Your task to perform on an android device: turn on translation in the chrome app Image 0: 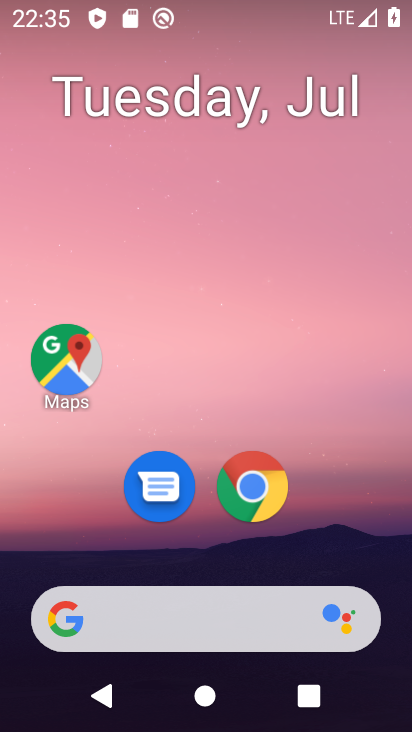
Step 0: press home button
Your task to perform on an android device: turn on translation in the chrome app Image 1: 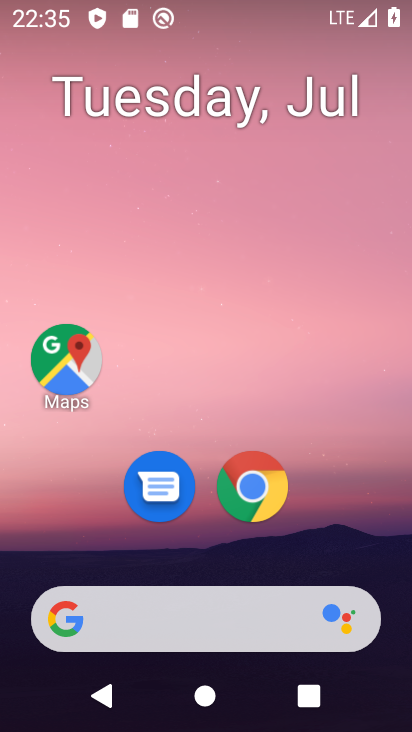
Step 1: drag from (356, 524) to (367, 121)
Your task to perform on an android device: turn on translation in the chrome app Image 2: 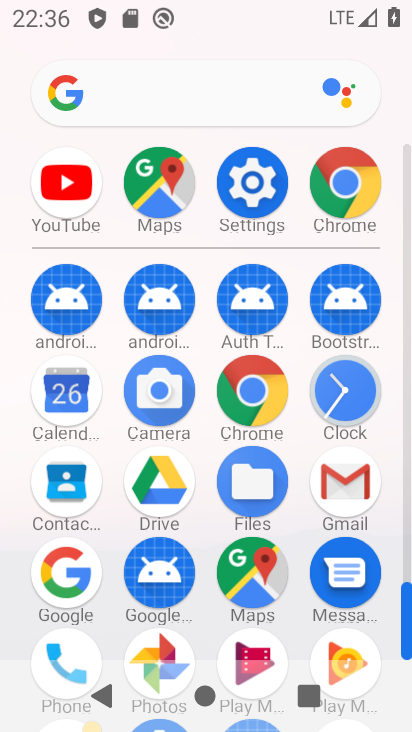
Step 2: click (256, 390)
Your task to perform on an android device: turn on translation in the chrome app Image 3: 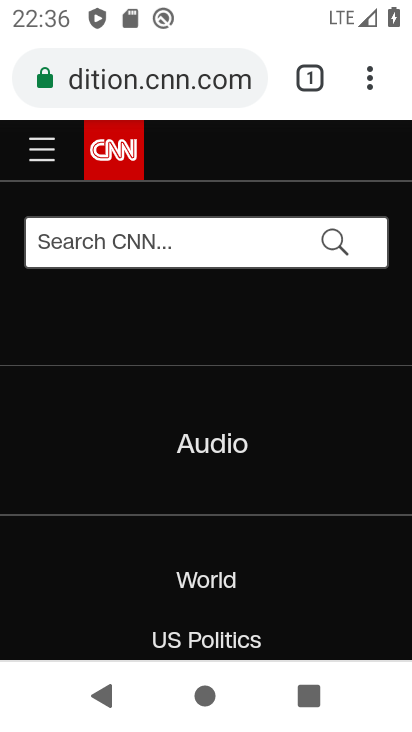
Step 3: click (368, 82)
Your task to perform on an android device: turn on translation in the chrome app Image 4: 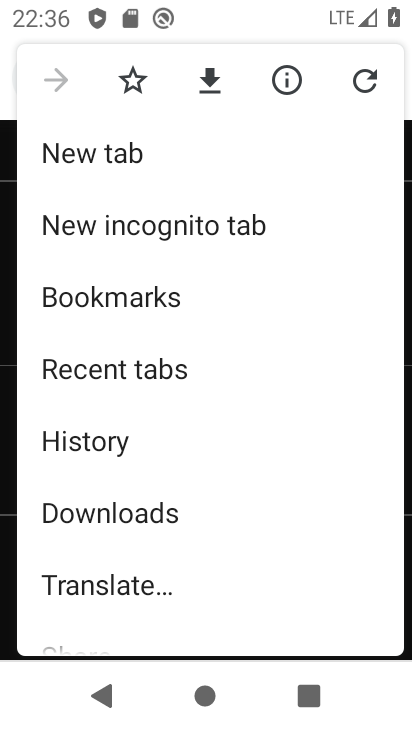
Step 4: drag from (266, 459) to (285, 373)
Your task to perform on an android device: turn on translation in the chrome app Image 5: 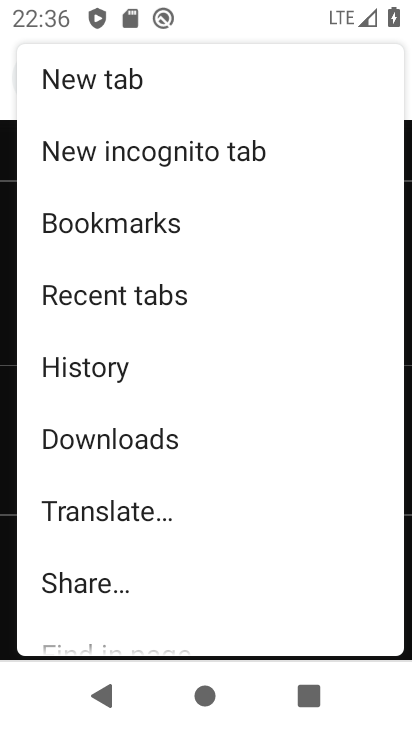
Step 5: drag from (261, 519) to (280, 379)
Your task to perform on an android device: turn on translation in the chrome app Image 6: 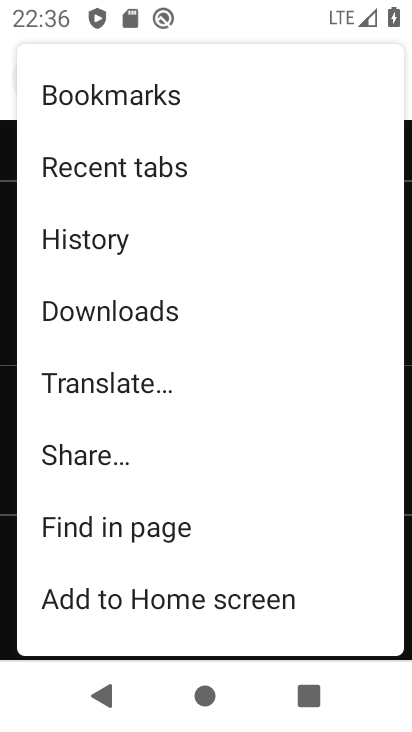
Step 6: drag from (281, 515) to (298, 386)
Your task to perform on an android device: turn on translation in the chrome app Image 7: 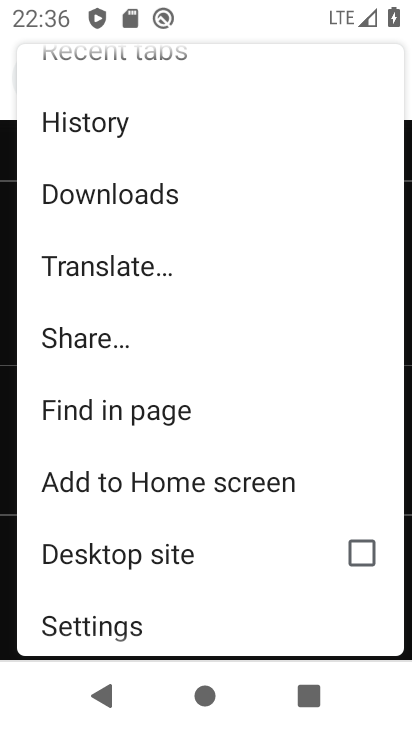
Step 7: drag from (274, 576) to (279, 436)
Your task to perform on an android device: turn on translation in the chrome app Image 8: 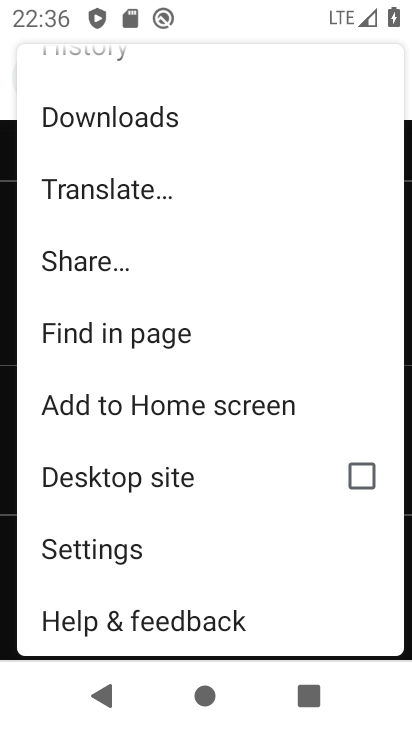
Step 8: click (230, 553)
Your task to perform on an android device: turn on translation in the chrome app Image 9: 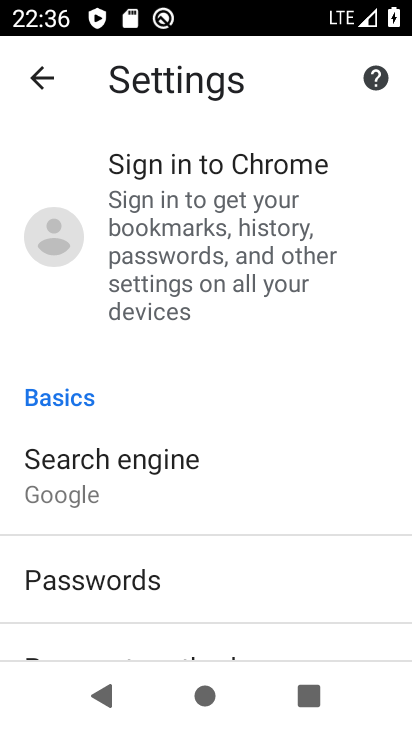
Step 9: drag from (330, 557) to (336, 441)
Your task to perform on an android device: turn on translation in the chrome app Image 10: 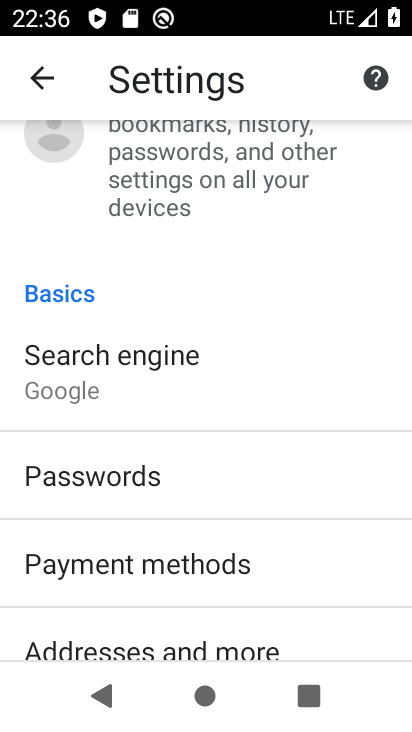
Step 10: drag from (334, 532) to (339, 434)
Your task to perform on an android device: turn on translation in the chrome app Image 11: 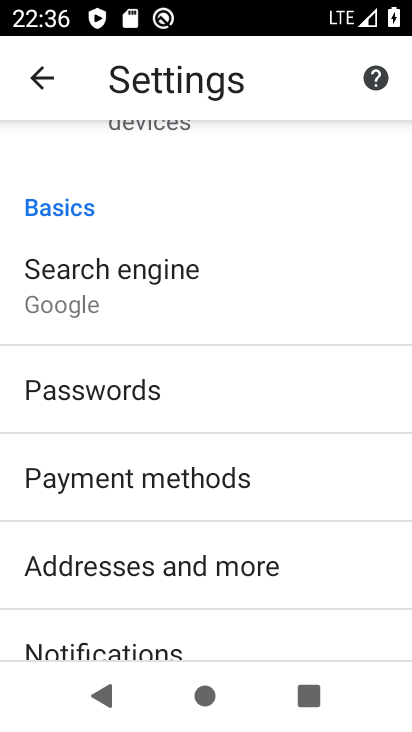
Step 11: drag from (333, 572) to (334, 439)
Your task to perform on an android device: turn on translation in the chrome app Image 12: 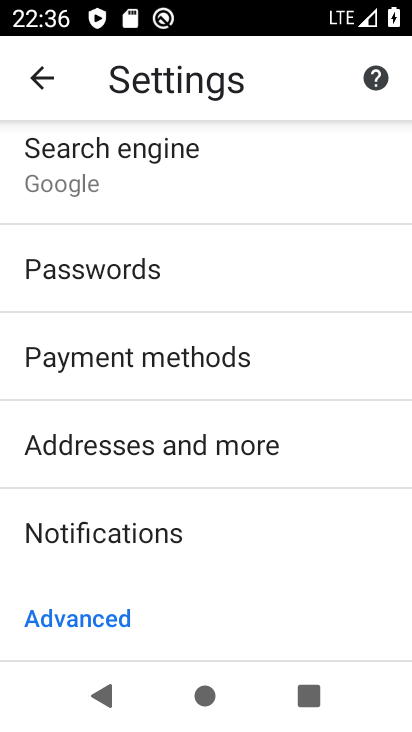
Step 12: drag from (329, 575) to (325, 466)
Your task to perform on an android device: turn on translation in the chrome app Image 13: 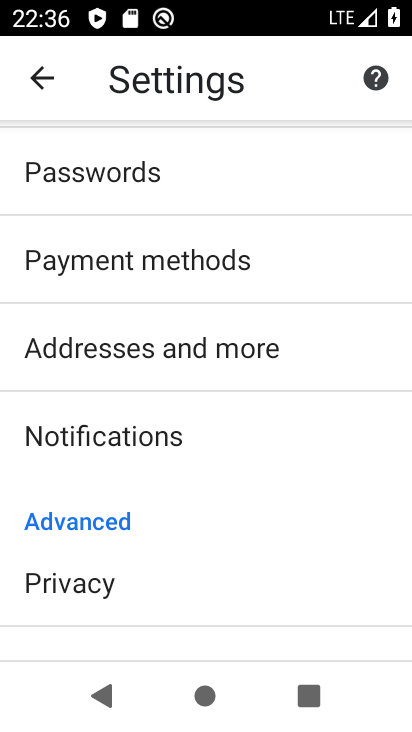
Step 13: drag from (306, 579) to (304, 446)
Your task to perform on an android device: turn on translation in the chrome app Image 14: 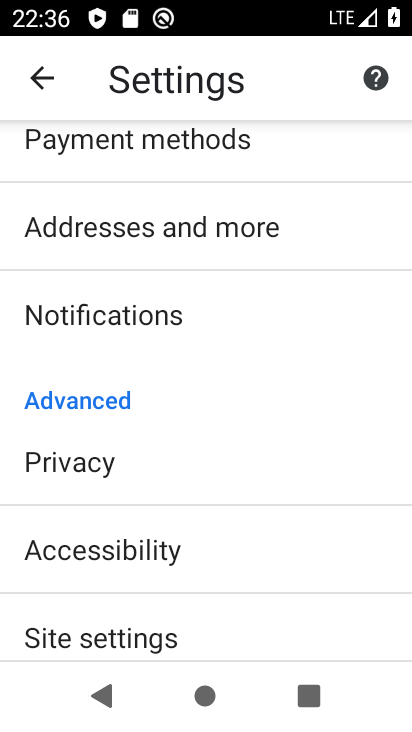
Step 14: drag from (283, 598) to (282, 492)
Your task to perform on an android device: turn on translation in the chrome app Image 15: 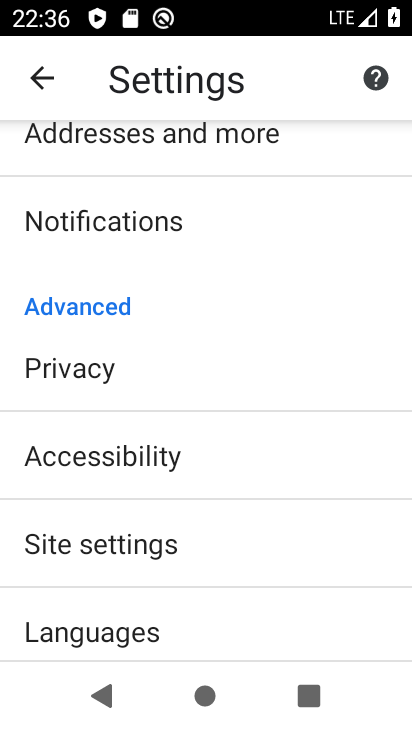
Step 15: drag from (270, 608) to (270, 488)
Your task to perform on an android device: turn on translation in the chrome app Image 16: 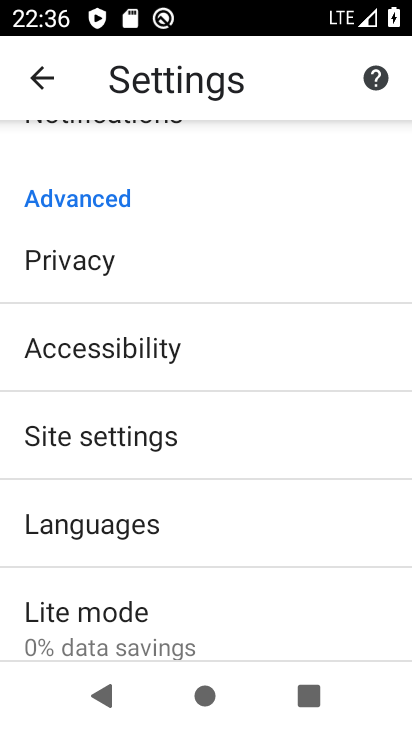
Step 16: click (265, 519)
Your task to perform on an android device: turn on translation in the chrome app Image 17: 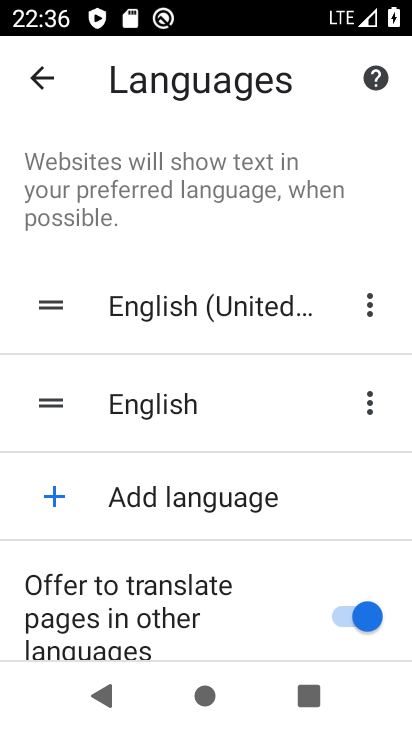
Step 17: task complete